Your task to perform on an android device: open chrome privacy settings Image 0: 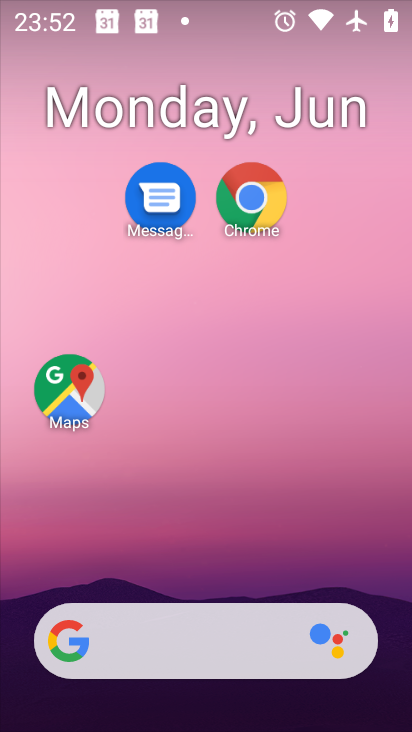
Step 0: click (249, 218)
Your task to perform on an android device: open chrome privacy settings Image 1: 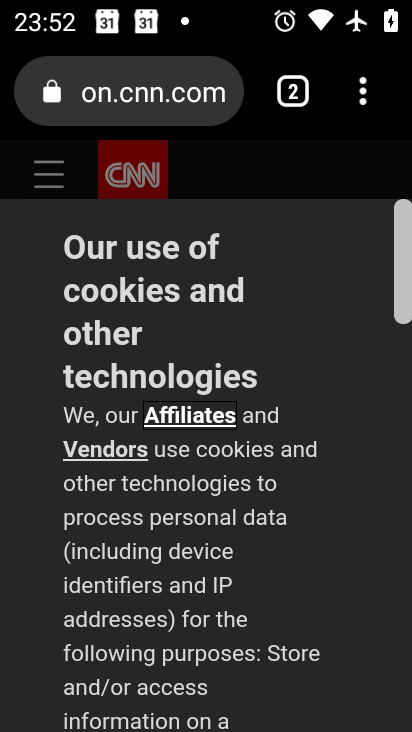
Step 1: click (359, 98)
Your task to perform on an android device: open chrome privacy settings Image 2: 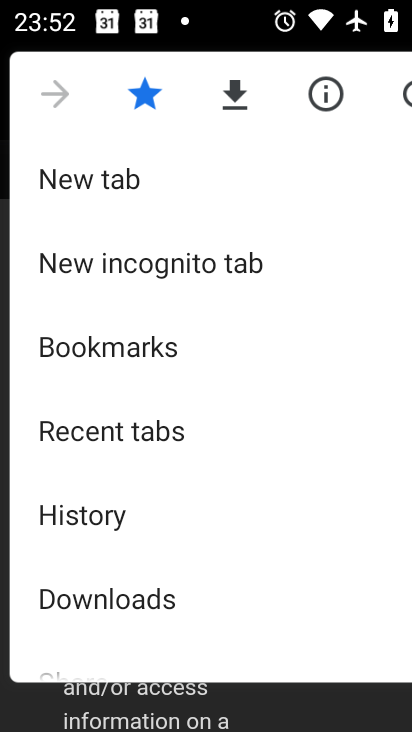
Step 2: drag from (168, 594) to (194, 319)
Your task to perform on an android device: open chrome privacy settings Image 3: 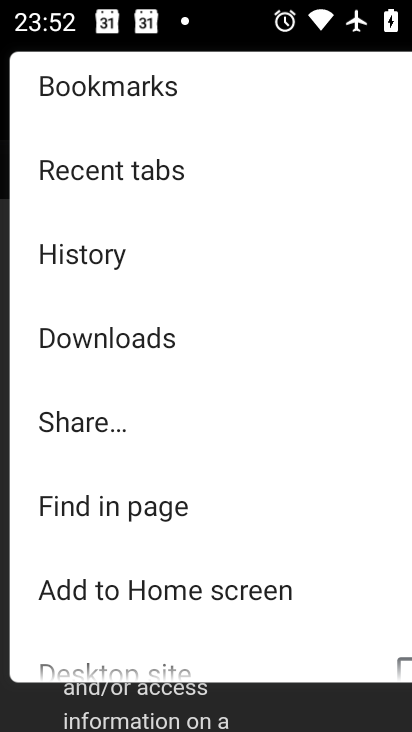
Step 3: drag from (181, 551) to (214, 308)
Your task to perform on an android device: open chrome privacy settings Image 4: 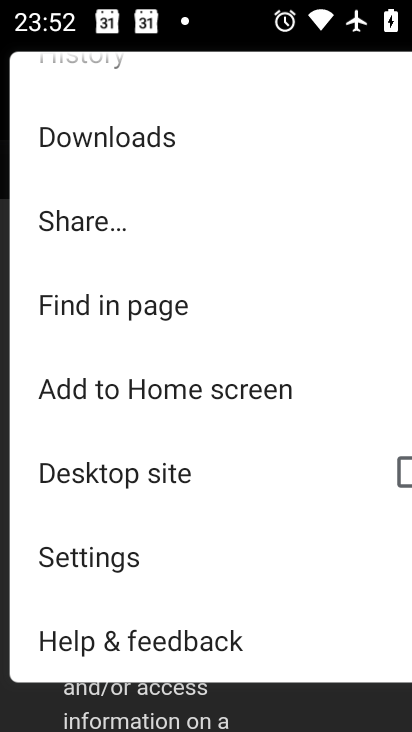
Step 4: click (157, 553)
Your task to perform on an android device: open chrome privacy settings Image 5: 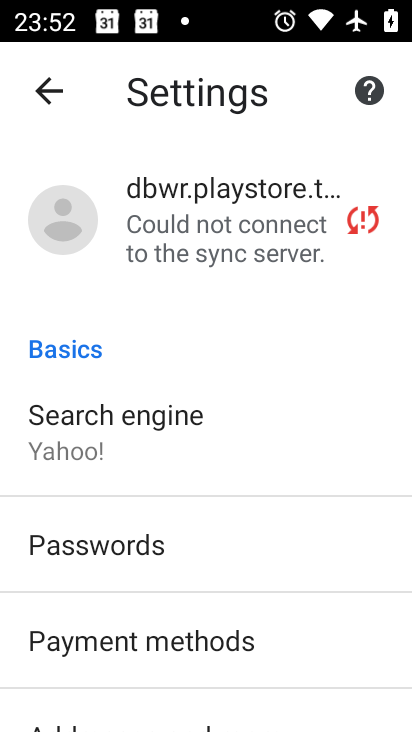
Step 5: drag from (219, 625) to (244, 403)
Your task to perform on an android device: open chrome privacy settings Image 6: 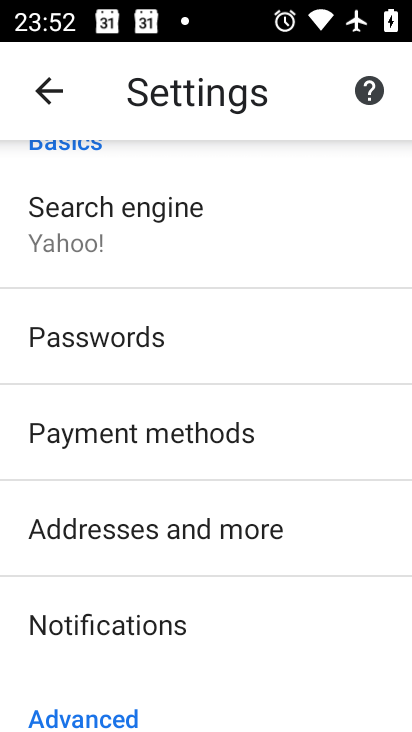
Step 6: drag from (159, 638) to (197, 285)
Your task to perform on an android device: open chrome privacy settings Image 7: 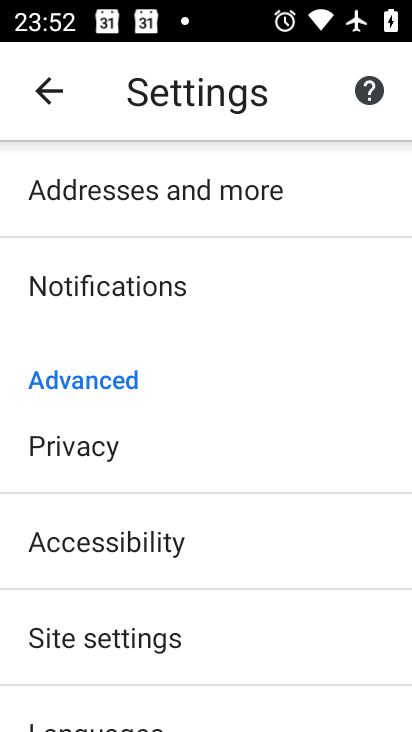
Step 7: click (156, 442)
Your task to perform on an android device: open chrome privacy settings Image 8: 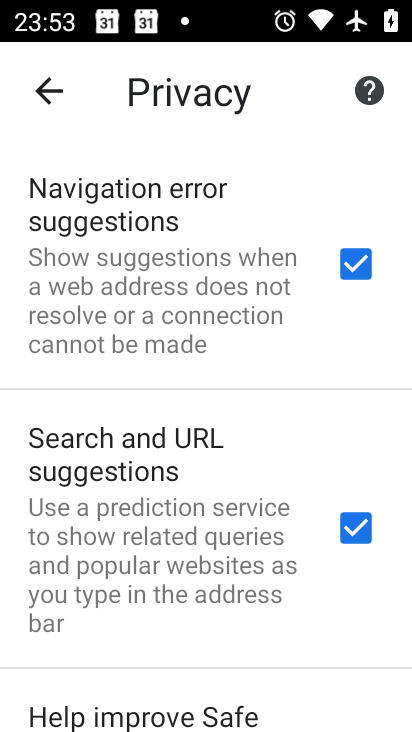
Step 8: task complete